Your task to perform on an android device: toggle airplane mode Image 0: 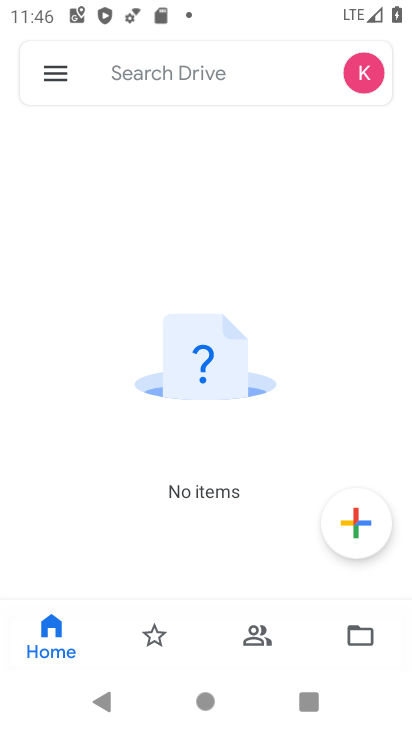
Step 0: press home button
Your task to perform on an android device: toggle airplane mode Image 1: 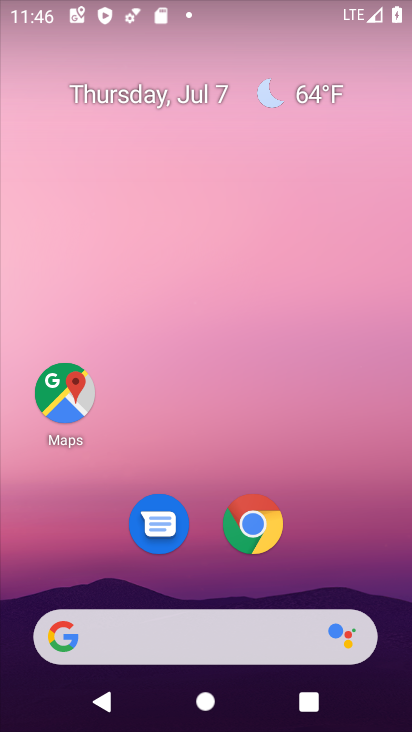
Step 1: drag from (307, 525) to (302, 43)
Your task to perform on an android device: toggle airplane mode Image 2: 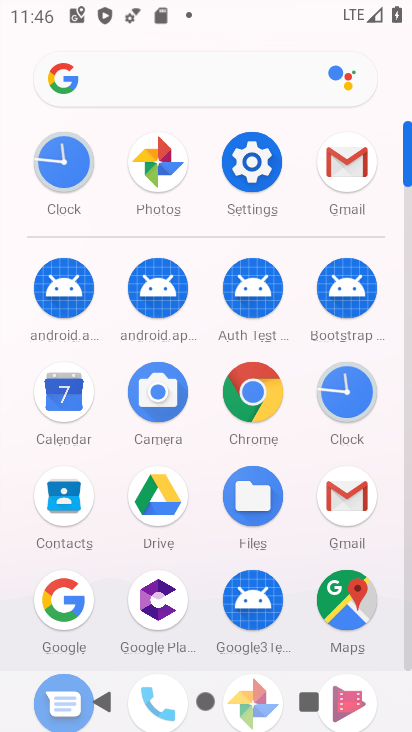
Step 2: drag from (197, 547) to (221, 184)
Your task to perform on an android device: toggle airplane mode Image 3: 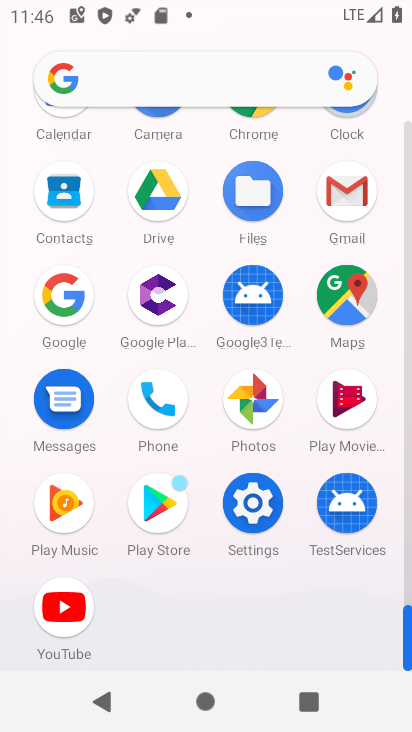
Step 3: click (256, 501)
Your task to perform on an android device: toggle airplane mode Image 4: 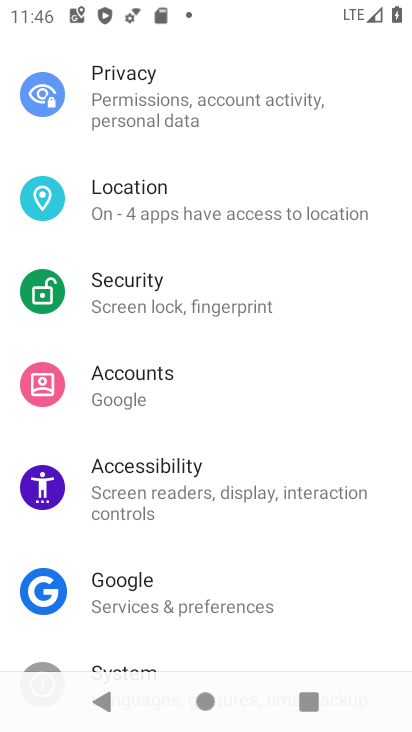
Step 4: drag from (246, 164) to (256, 627)
Your task to perform on an android device: toggle airplane mode Image 5: 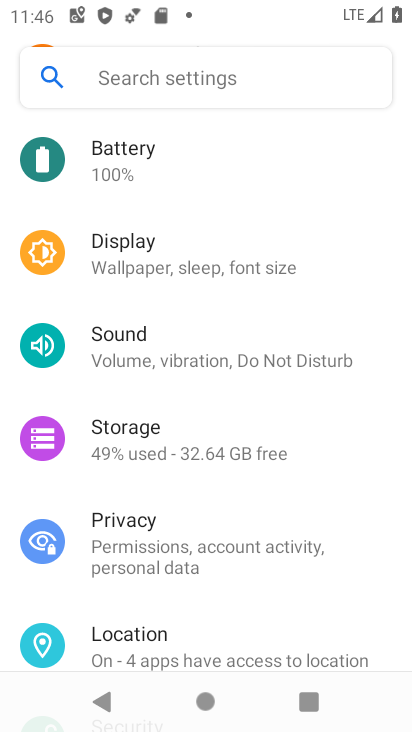
Step 5: drag from (233, 232) to (225, 542)
Your task to perform on an android device: toggle airplane mode Image 6: 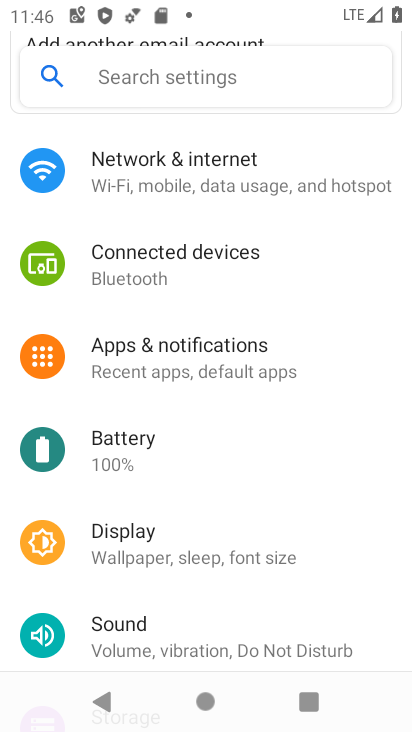
Step 6: drag from (228, 316) to (229, 521)
Your task to perform on an android device: toggle airplane mode Image 7: 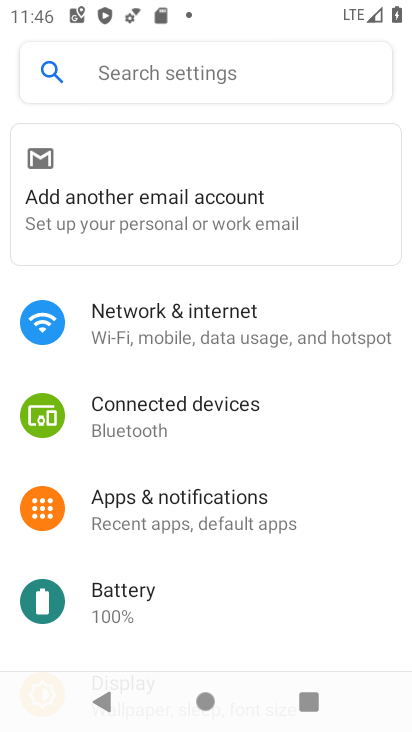
Step 7: click (231, 334)
Your task to perform on an android device: toggle airplane mode Image 8: 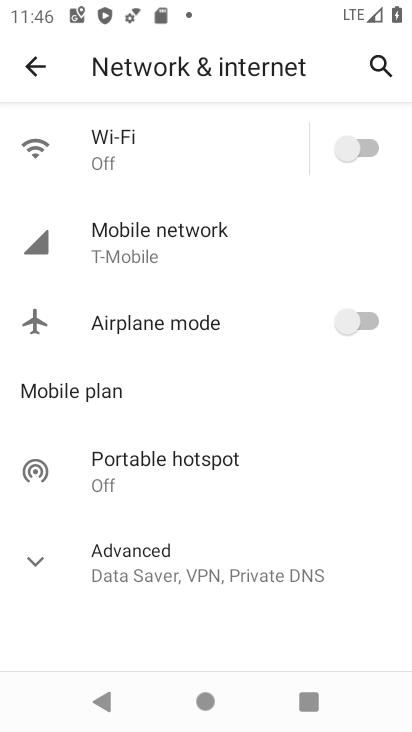
Step 8: click (359, 314)
Your task to perform on an android device: toggle airplane mode Image 9: 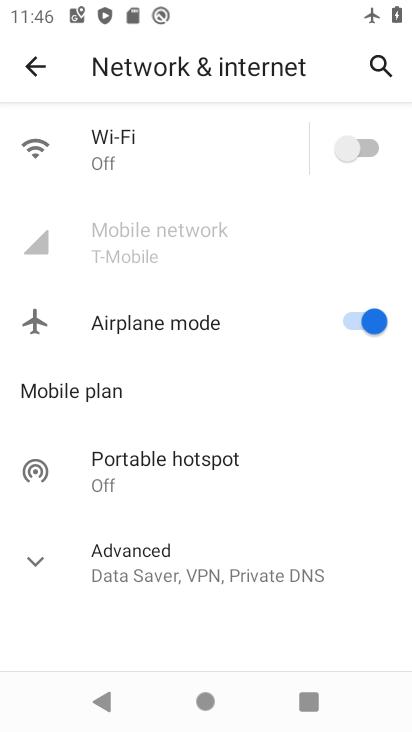
Step 9: task complete